Your task to perform on an android device: Play the last video I watched on Youtube Image 0: 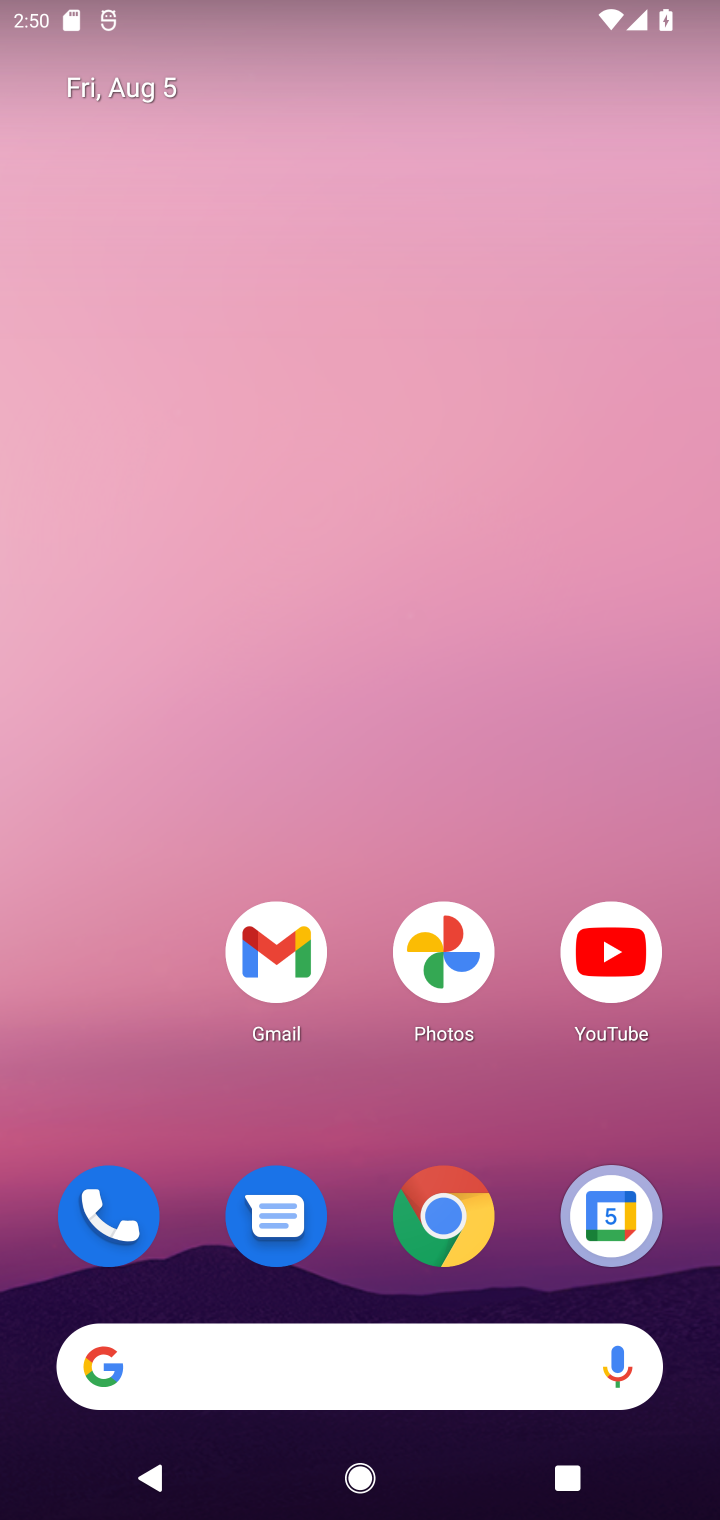
Step 0: click (623, 951)
Your task to perform on an android device: Play the last video I watched on Youtube Image 1: 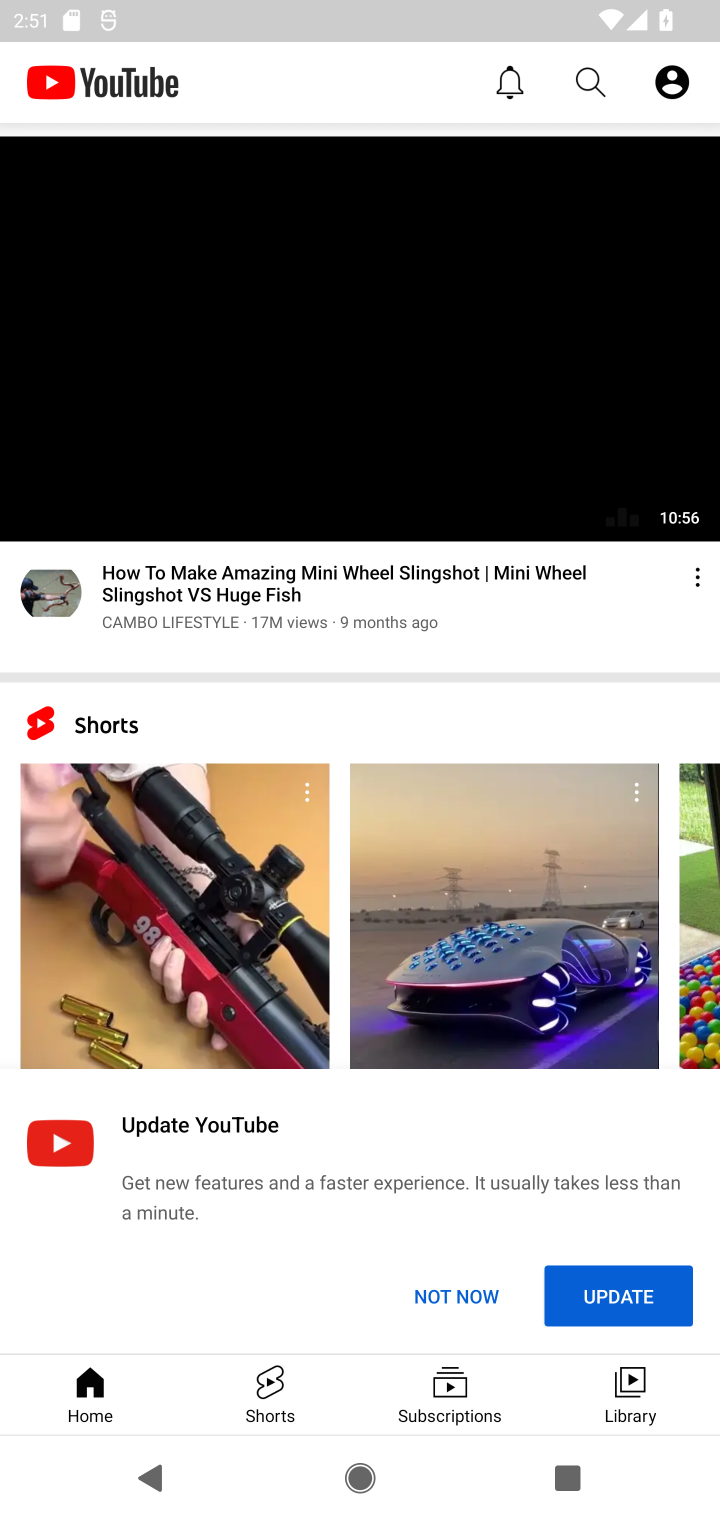
Step 1: click (633, 1397)
Your task to perform on an android device: Play the last video I watched on Youtube Image 2: 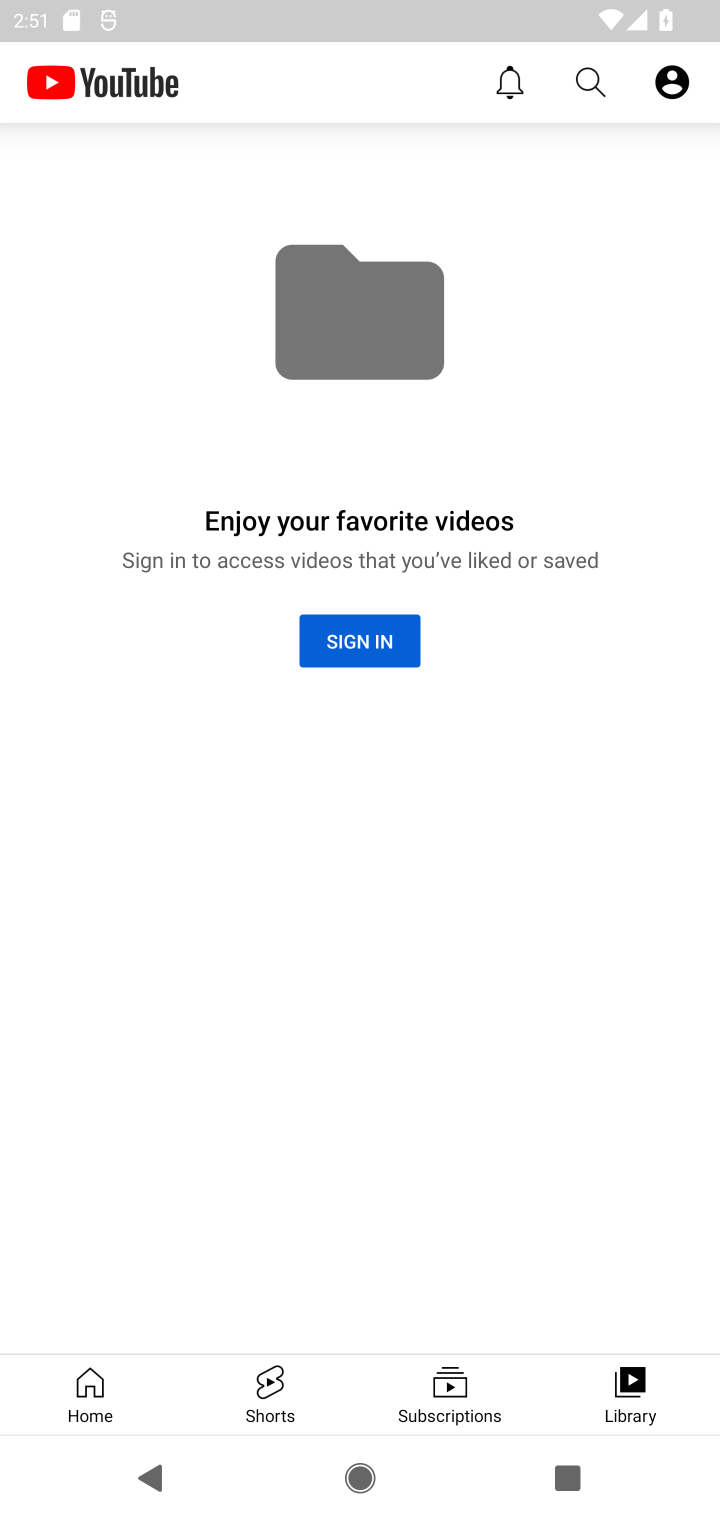
Step 2: click (592, 81)
Your task to perform on an android device: Play the last video I watched on Youtube Image 3: 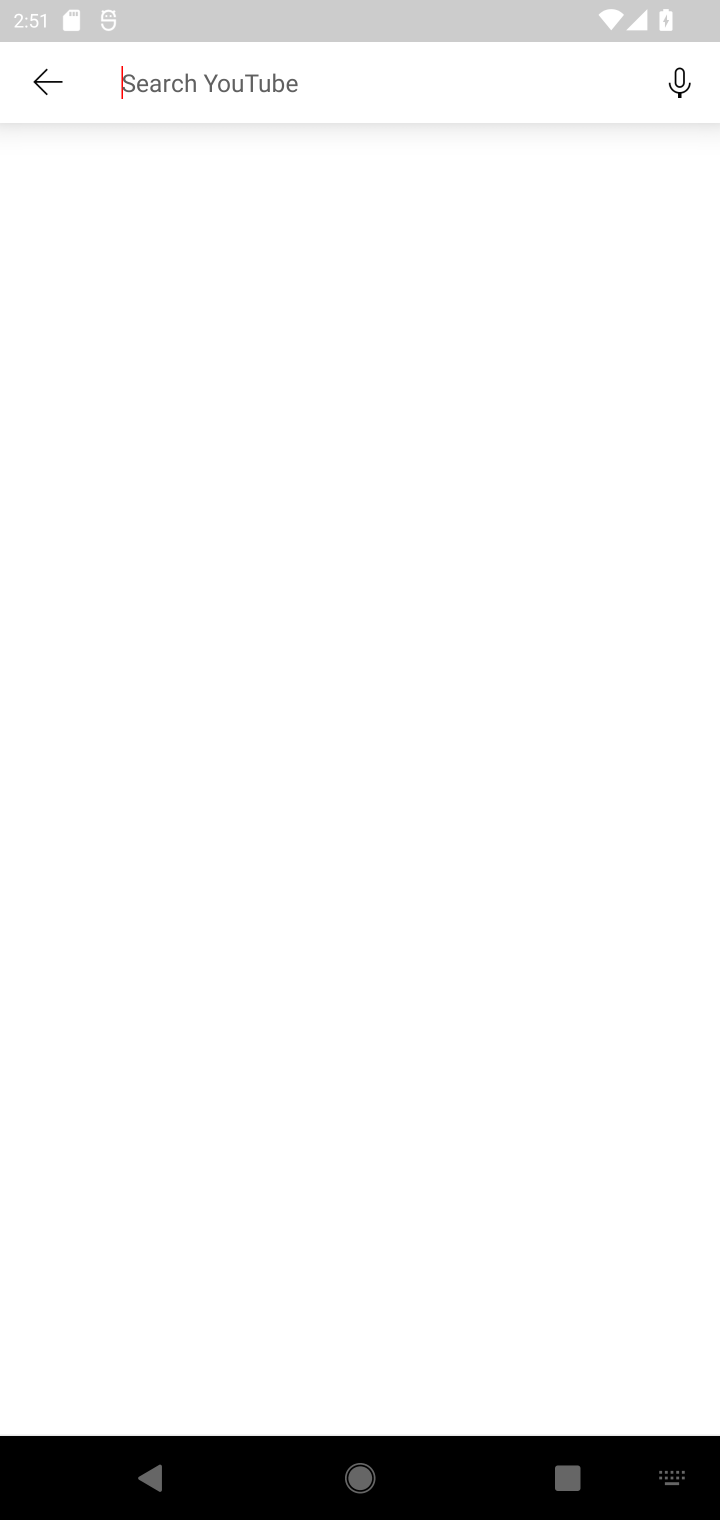
Step 3: click (44, 82)
Your task to perform on an android device: Play the last video I watched on Youtube Image 4: 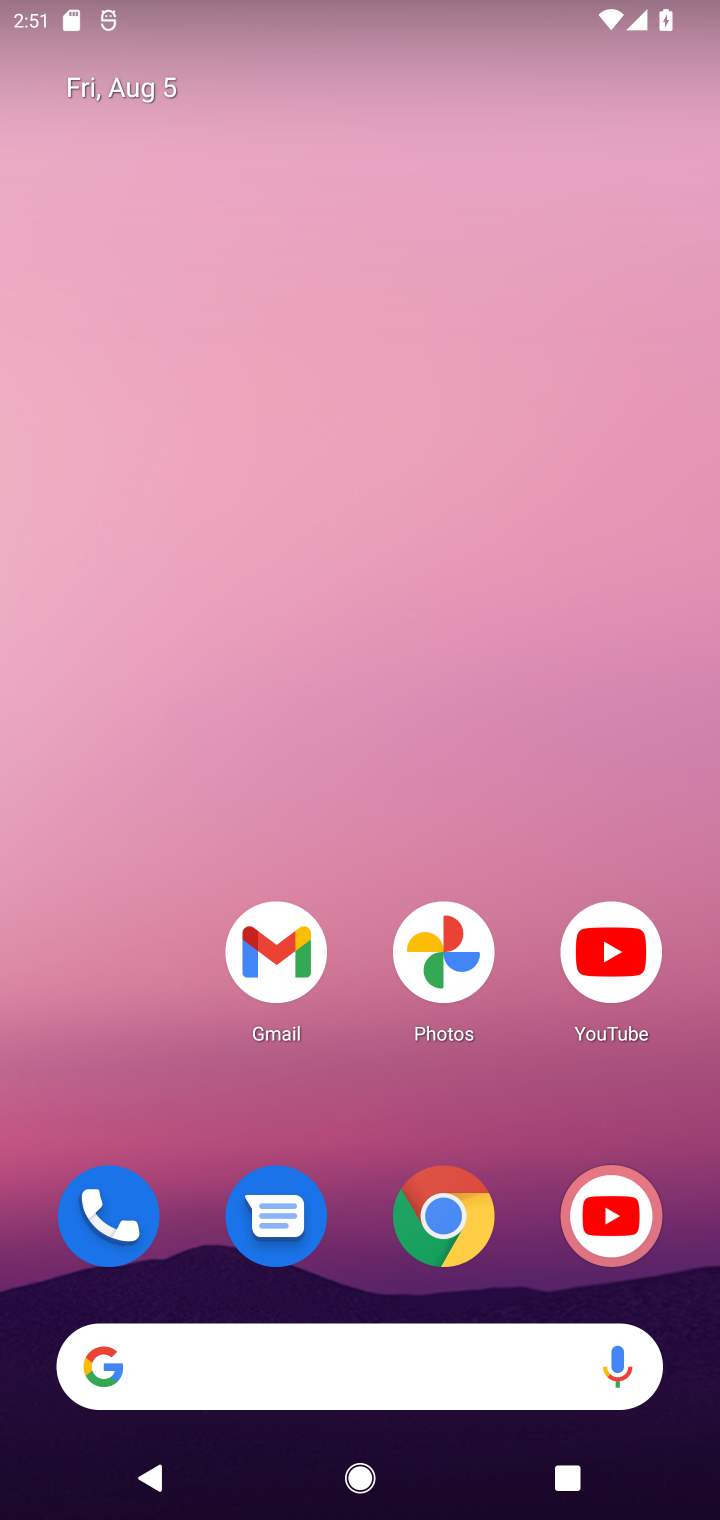
Step 4: task complete